Your task to perform on an android device: turn on notifications settings in the gmail app Image 0: 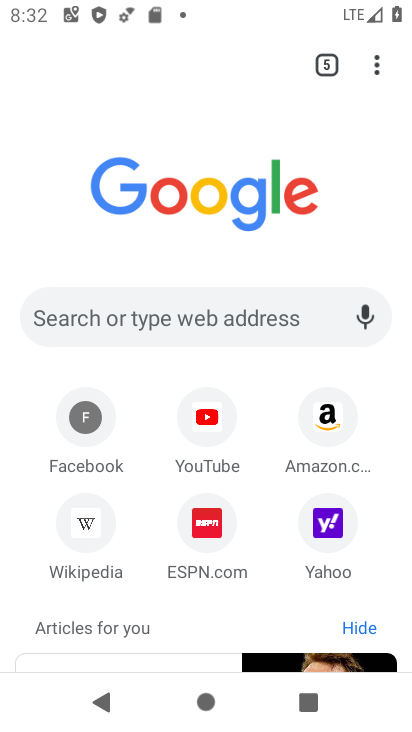
Step 0: press home button
Your task to perform on an android device: turn on notifications settings in the gmail app Image 1: 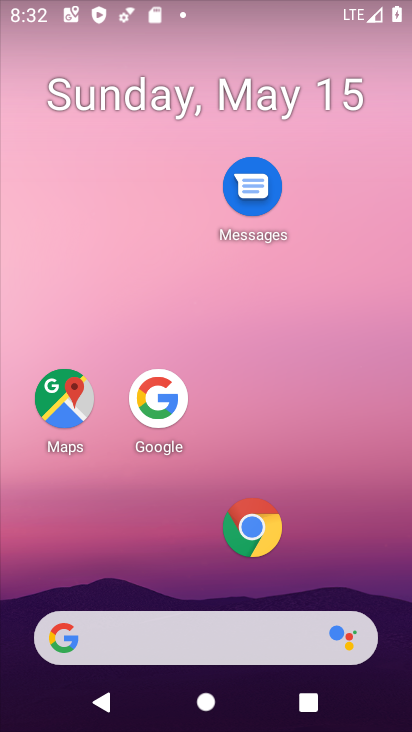
Step 1: drag from (154, 652) to (307, 179)
Your task to perform on an android device: turn on notifications settings in the gmail app Image 2: 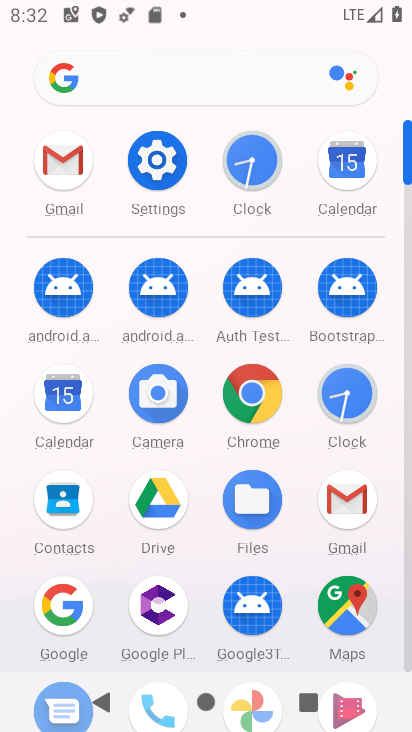
Step 2: click (64, 174)
Your task to perform on an android device: turn on notifications settings in the gmail app Image 3: 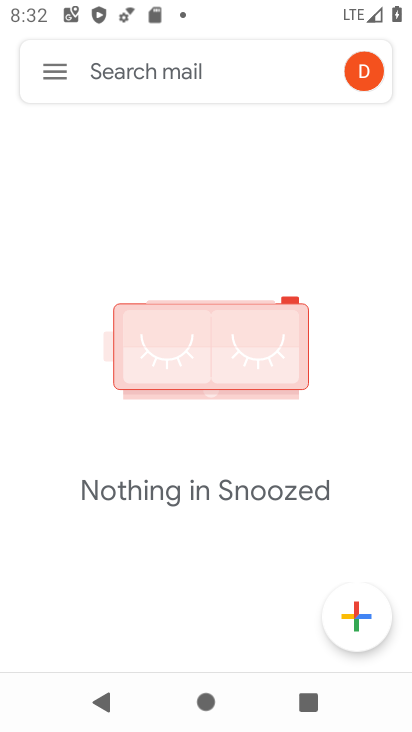
Step 3: click (54, 71)
Your task to perform on an android device: turn on notifications settings in the gmail app Image 4: 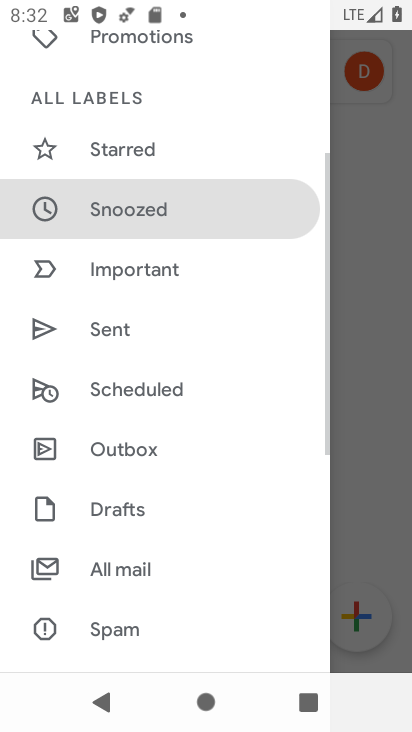
Step 4: drag from (161, 573) to (313, 104)
Your task to perform on an android device: turn on notifications settings in the gmail app Image 5: 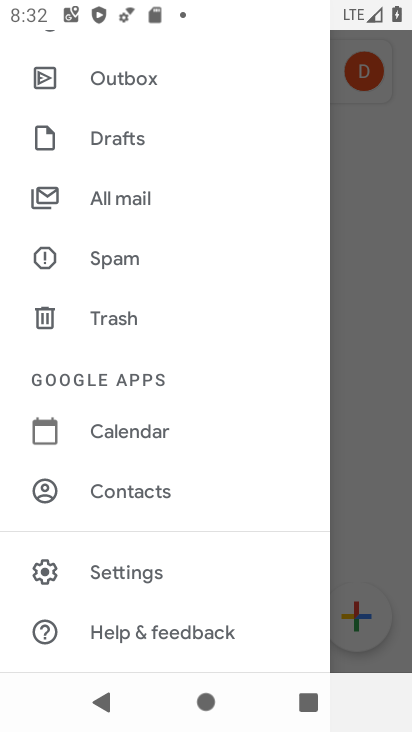
Step 5: click (117, 575)
Your task to perform on an android device: turn on notifications settings in the gmail app Image 6: 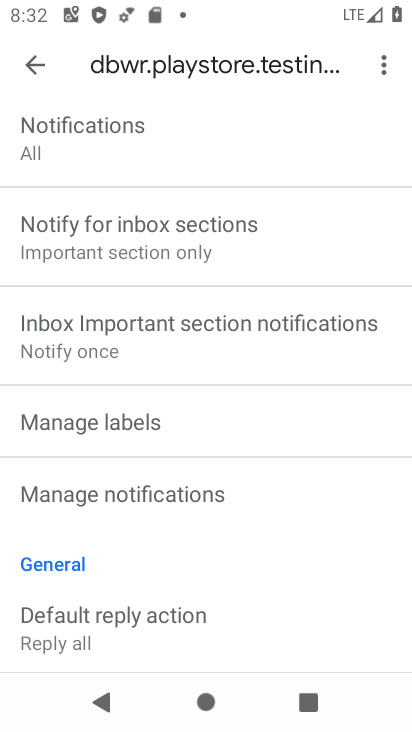
Step 6: click (40, 142)
Your task to perform on an android device: turn on notifications settings in the gmail app Image 7: 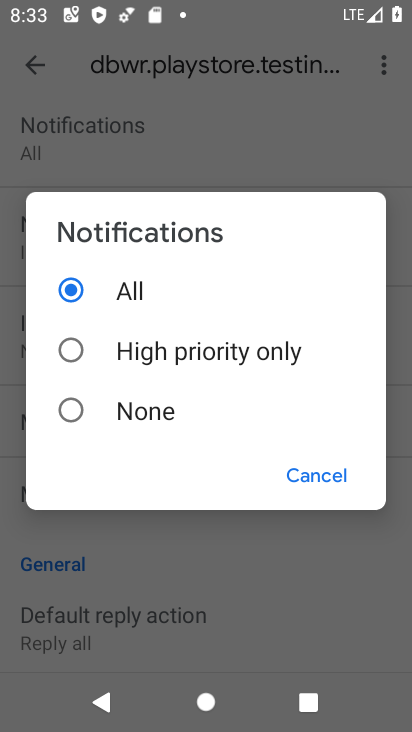
Step 7: task complete